Your task to perform on an android device: Open the stopwatch Image 0: 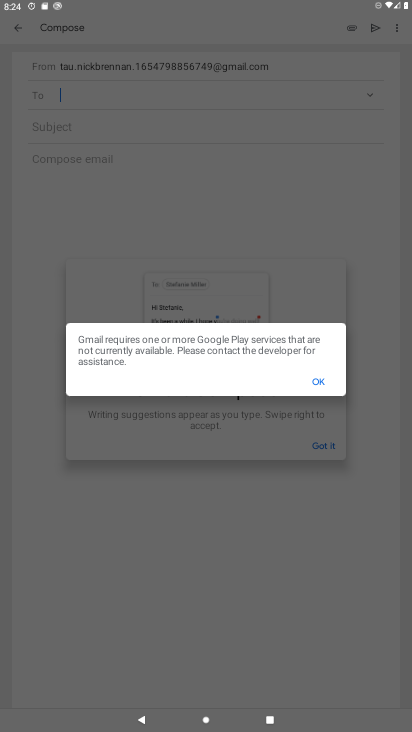
Step 0: press home button
Your task to perform on an android device: Open the stopwatch Image 1: 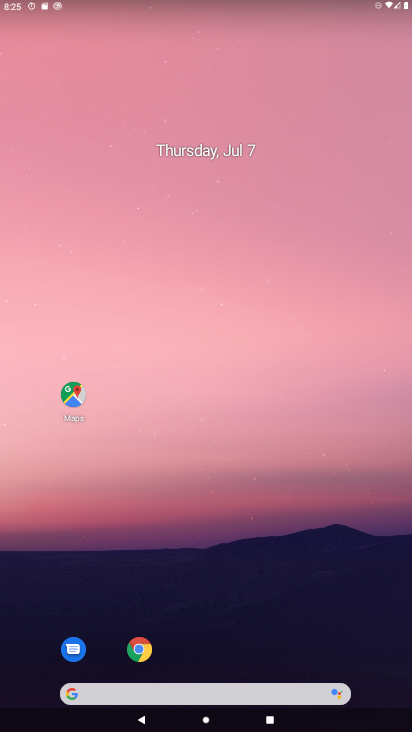
Step 1: drag from (219, 658) to (215, 98)
Your task to perform on an android device: Open the stopwatch Image 2: 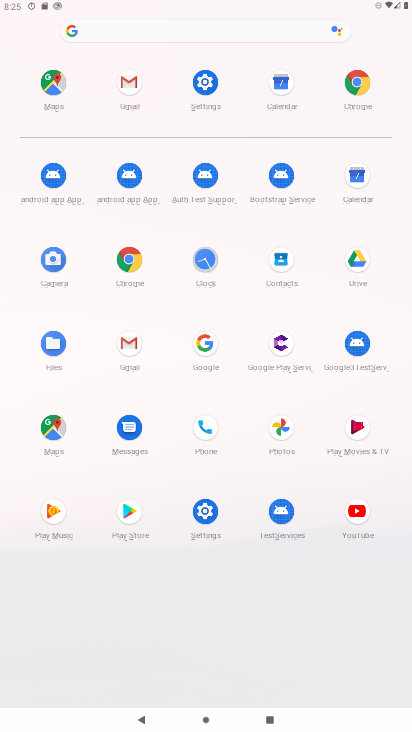
Step 2: click (207, 259)
Your task to perform on an android device: Open the stopwatch Image 3: 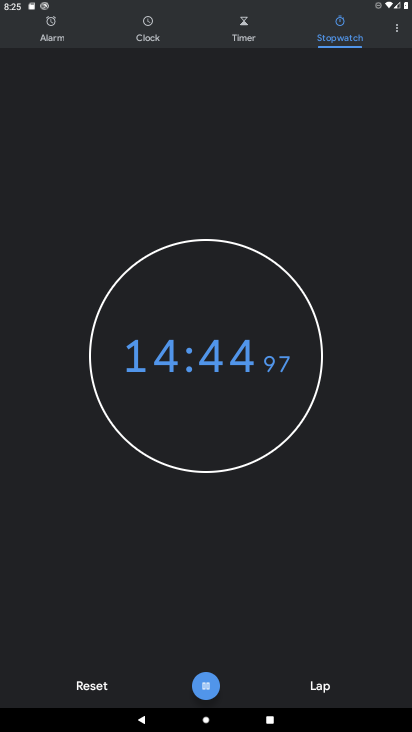
Step 3: task complete